Your task to perform on an android device: Open accessibility settings Image 0: 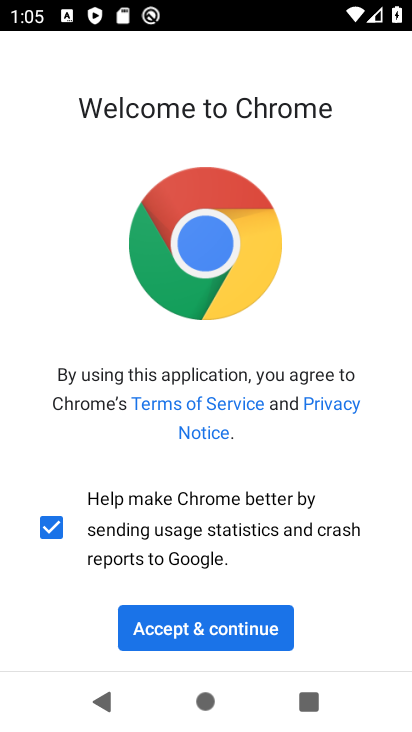
Step 0: press home button
Your task to perform on an android device: Open accessibility settings Image 1: 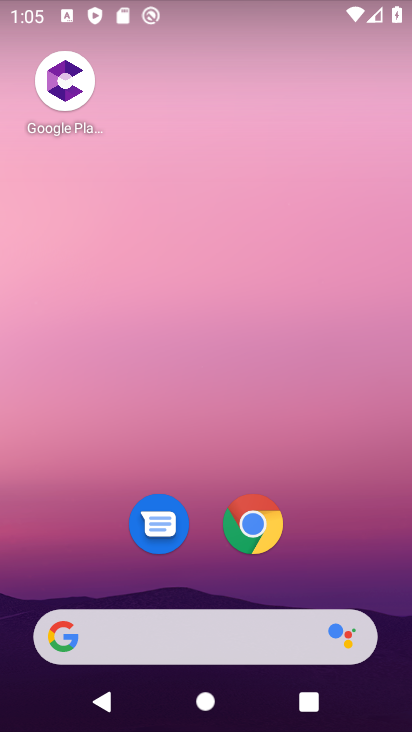
Step 1: drag from (333, 546) to (266, 123)
Your task to perform on an android device: Open accessibility settings Image 2: 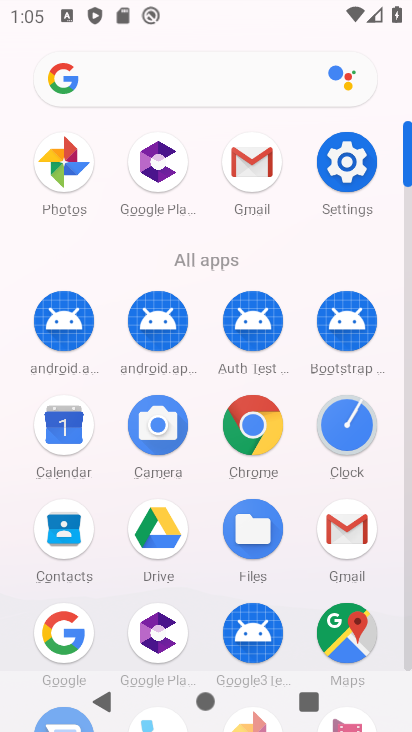
Step 2: click (343, 168)
Your task to perform on an android device: Open accessibility settings Image 3: 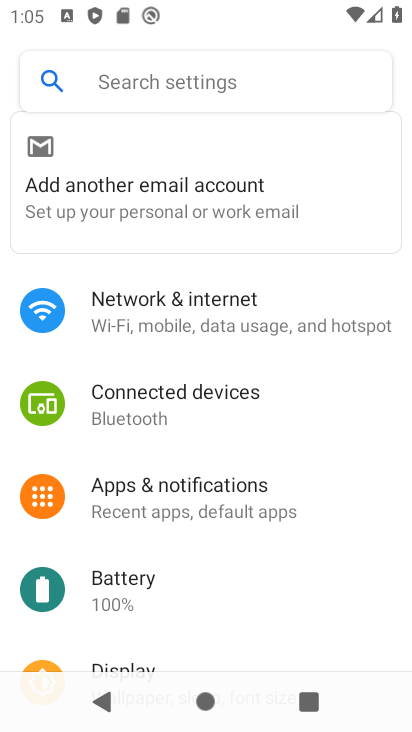
Step 3: drag from (250, 558) to (254, 72)
Your task to perform on an android device: Open accessibility settings Image 4: 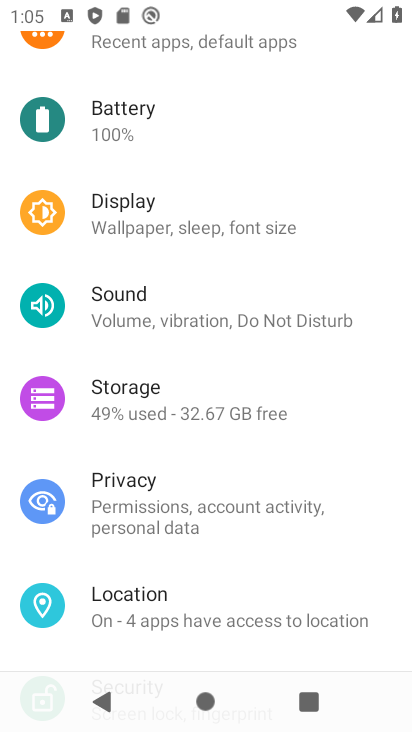
Step 4: drag from (268, 542) to (262, 109)
Your task to perform on an android device: Open accessibility settings Image 5: 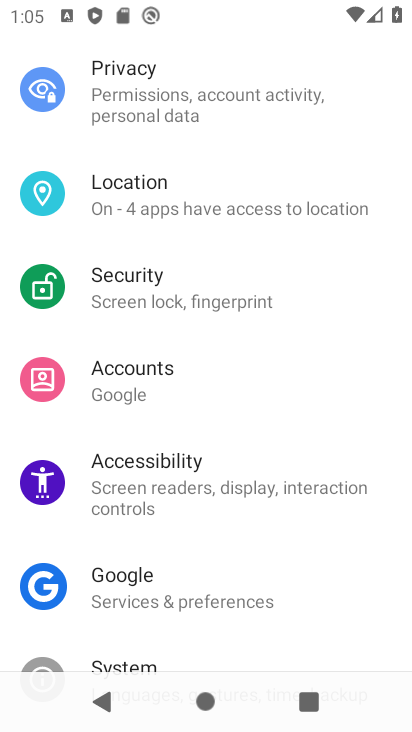
Step 5: click (213, 484)
Your task to perform on an android device: Open accessibility settings Image 6: 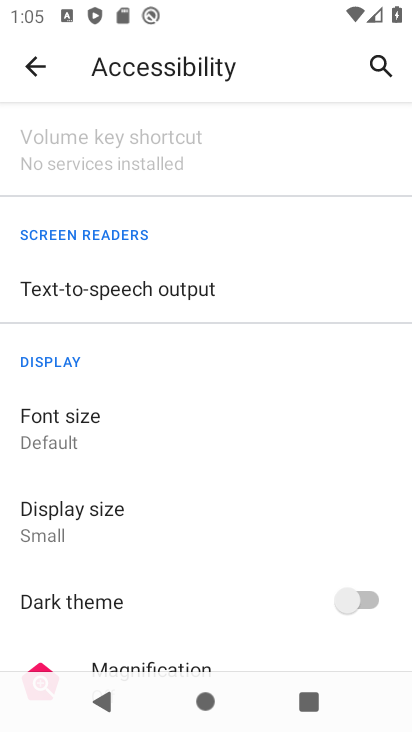
Step 6: task complete